Your task to perform on an android device: set the timer Image 0: 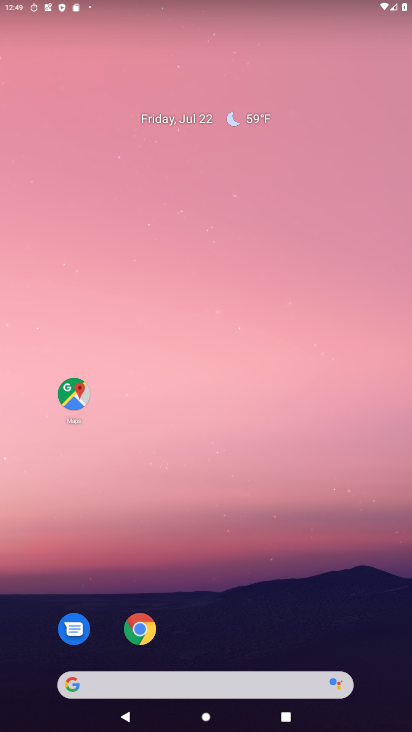
Step 0: drag from (209, 684) to (186, 25)
Your task to perform on an android device: set the timer Image 1: 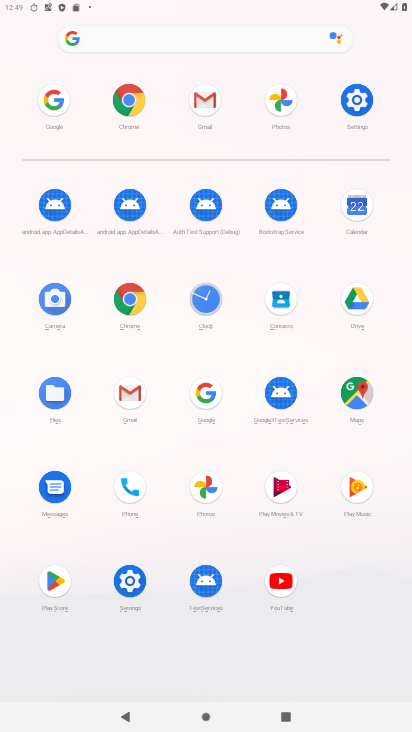
Step 1: click (198, 300)
Your task to perform on an android device: set the timer Image 2: 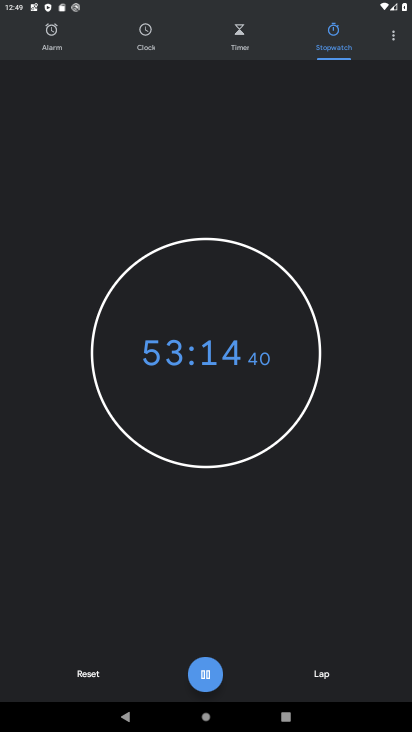
Step 2: click (241, 46)
Your task to perform on an android device: set the timer Image 3: 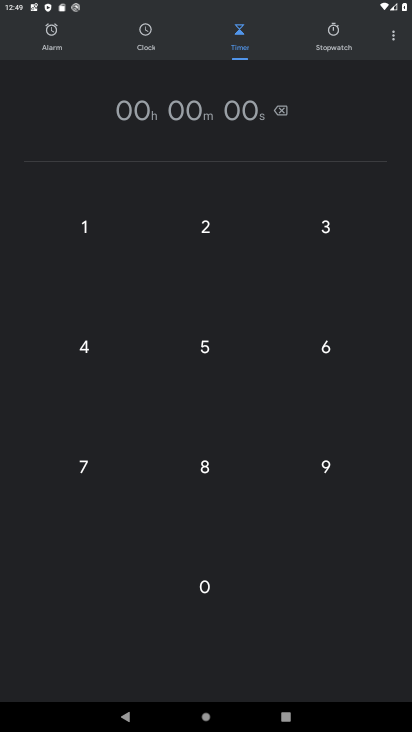
Step 3: click (329, 466)
Your task to perform on an android device: set the timer Image 4: 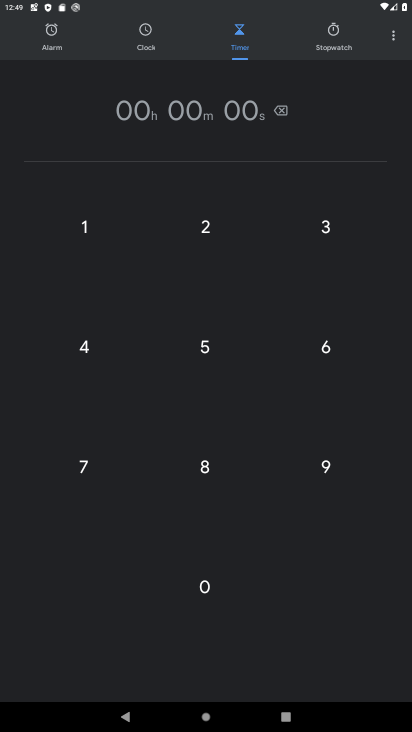
Step 4: click (329, 466)
Your task to perform on an android device: set the timer Image 5: 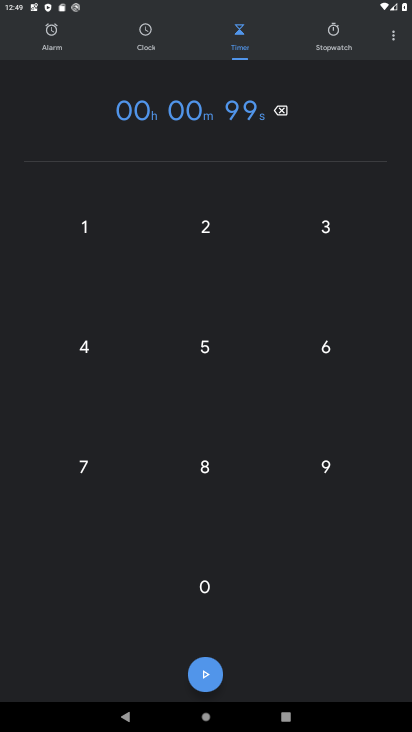
Step 5: click (211, 576)
Your task to perform on an android device: set the timer Image 6: 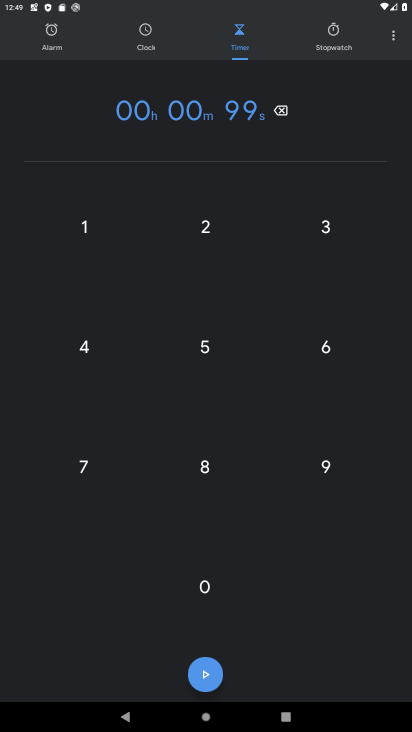
Step 6: click (211, 576)
Your task to perform on an android device: set the timer Image 7: 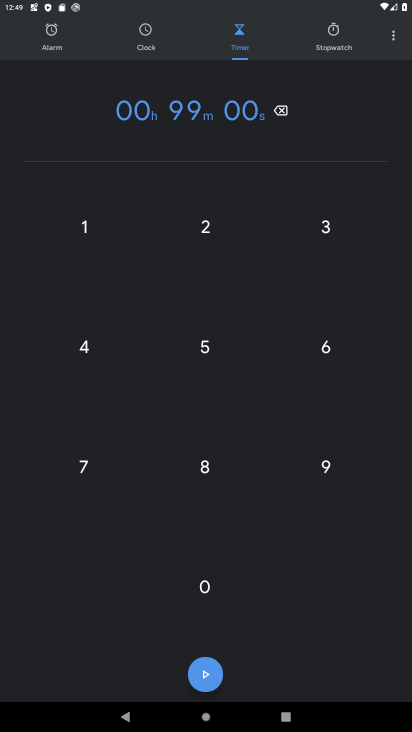
Step 7: click (211, 576)
Your task to perform on an android device: set the timer Image 8: 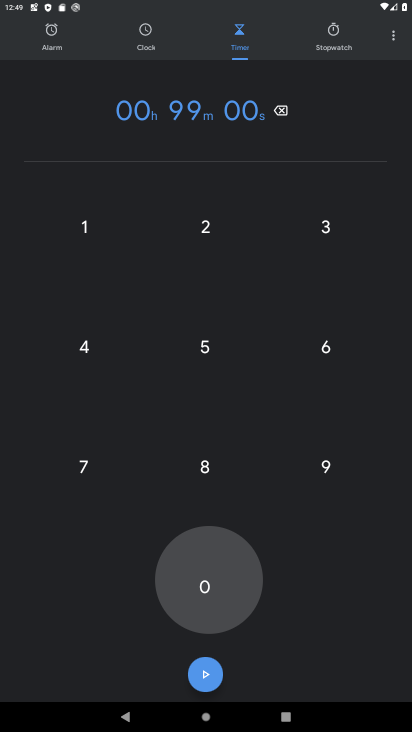
Step 8: click (211, 576)
Your task to perform on an android device: set the timer Image 9: 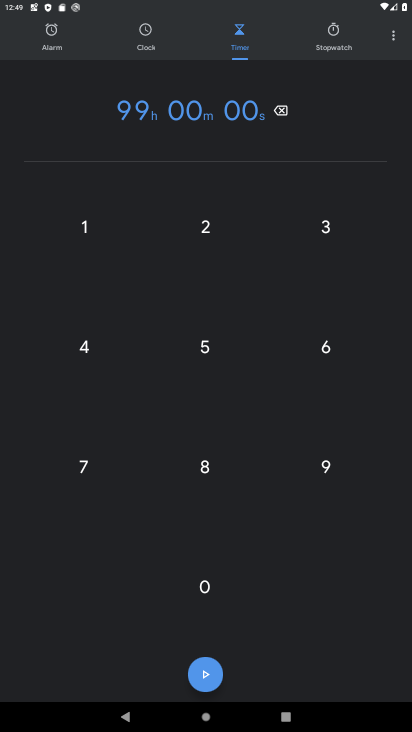
Step 9: click (209, 672)
Your task to perform on an android device: set the timer Image 10: 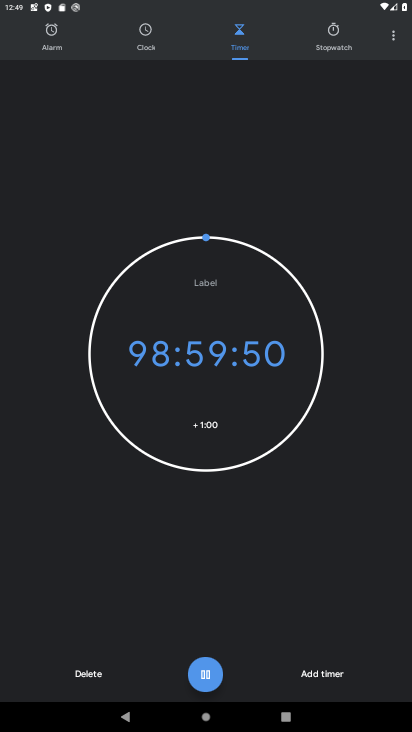
Step 10: task complete